Your task to perform on an android device: turn on priority inbox in the gmail app Image 0: 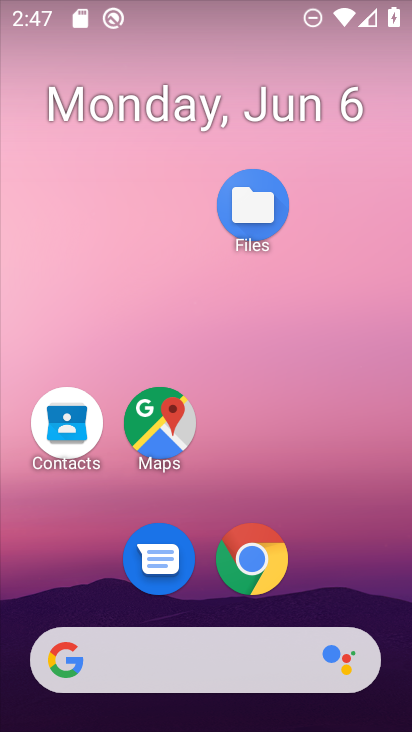
Step 0: drag from (206, 658) to (253, 136)
Your task to perform on an android device: turn on priority inbox in the gmail app Image 1: 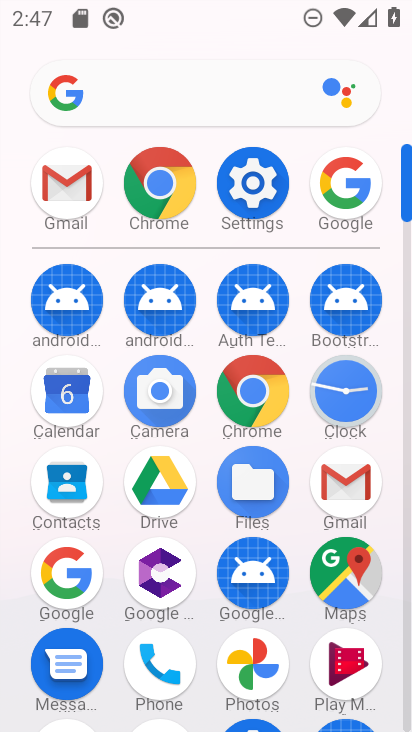
Step 1: click (352, 489)
Your task to perform on an android device: turn on priority inbox in the gmail app Image 2: 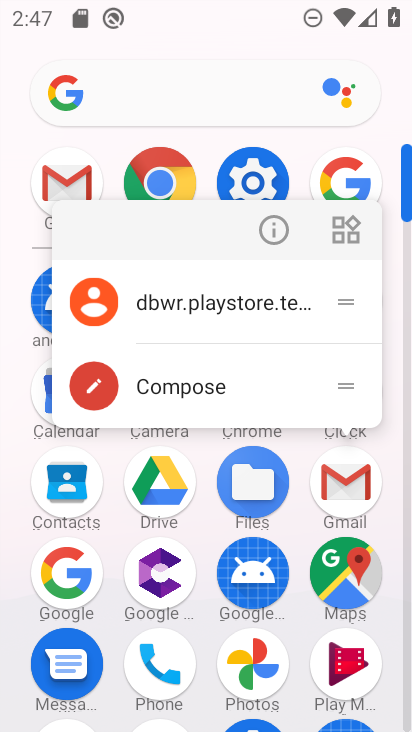
Step 2: click (349, 488)
Your task to perform on an android device: turn on priority inbox in the gmail app Image 3: 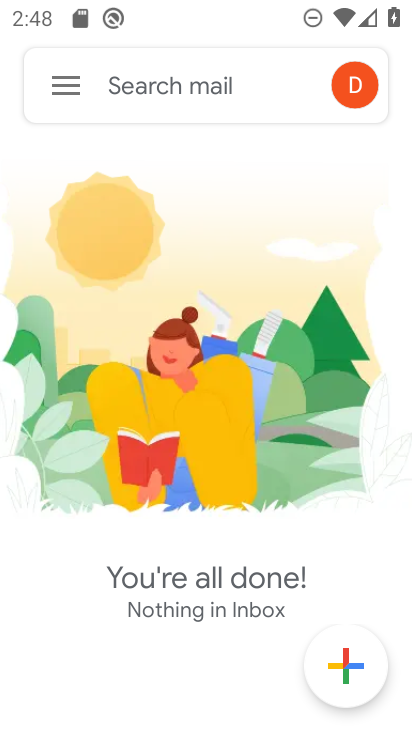
Step 3: click (79, 81)
Your task to perform on an android device: turn on priority inbox in the gmail app Image 4: 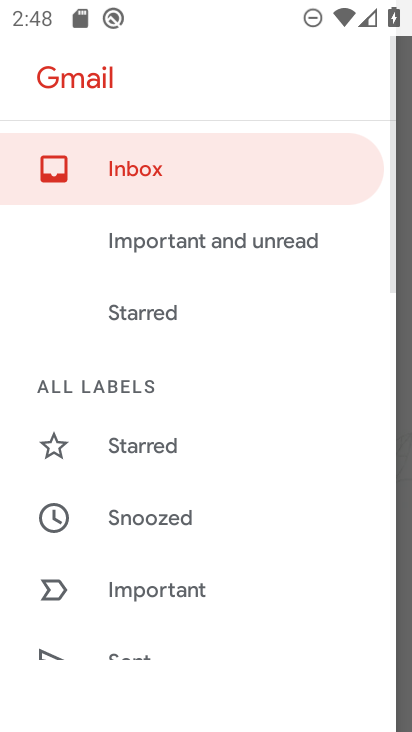
Step 4: drag from (173, 576) to (216, 145)
Your task to perform on an android device: turn on priority inbox in the gmail app Image 5: 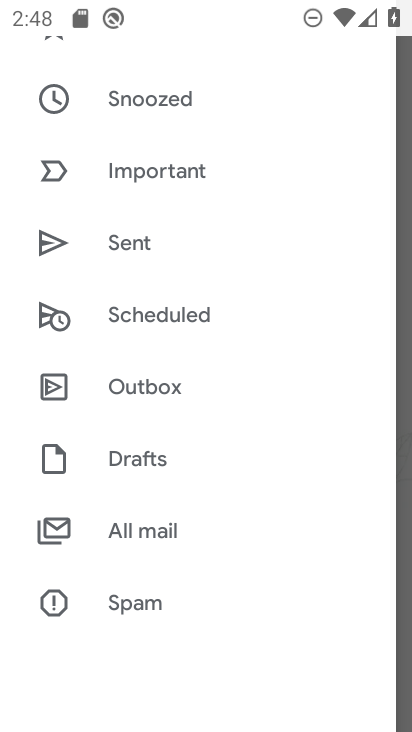
Step 5: drag from (193, 417) to (197, 645)
Your task to perform on an android device: turn on priority inbox in the gmail app Image 6: 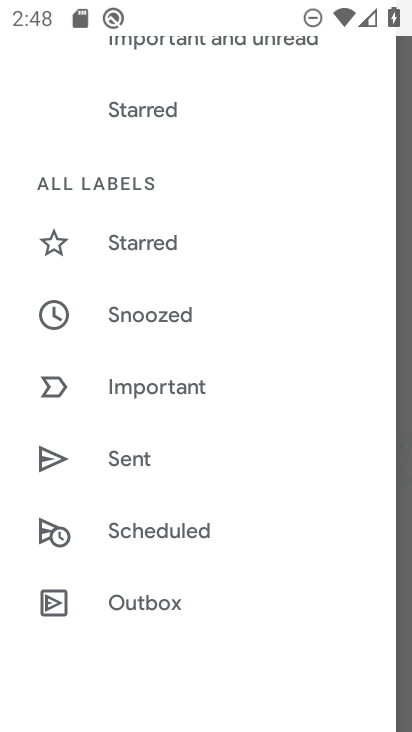
Step 6: drag from (179, 545) to (226, 196)
Your task to perform on an android device: turn on priority inbox in the gmail app Image 7: 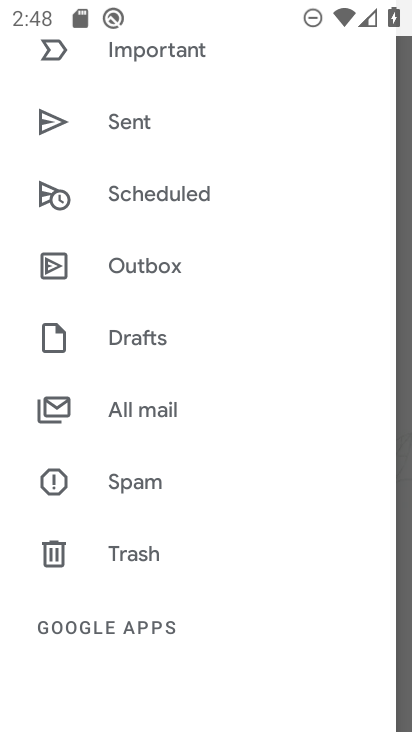
Step 7: drag from (191, 561) to (207, 223)
Your task to perform on an android device: turn on priority inbox in the gmail app Image 8: 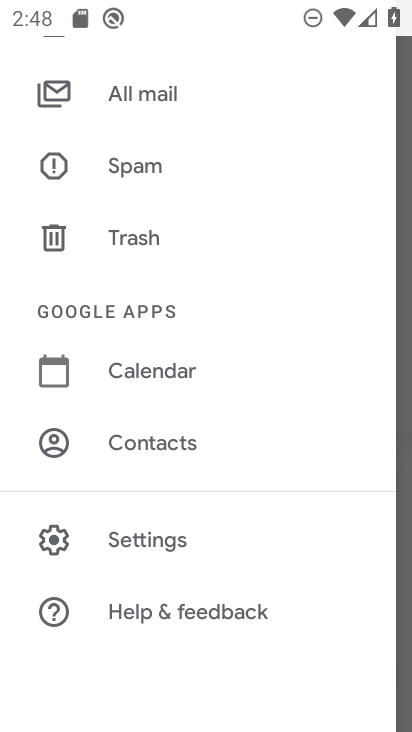
Step 8: click (156, 549)
Your task to perform on an android device: turn on priority inbox in the gmail app Image 9: 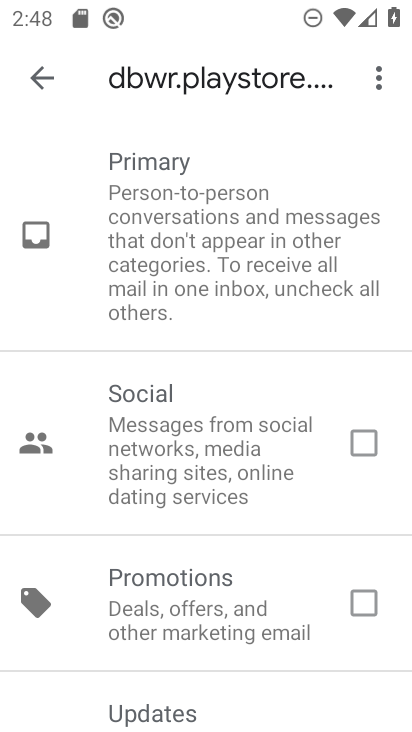
Step 9: click (54, 79)
Your task to perform on an android device: turn on priority inbox in the gmail app Image 10: 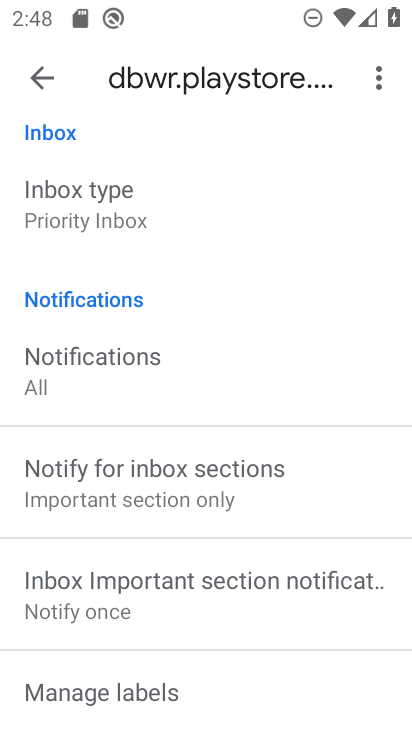
Step 10: drag from (121, 494) to (168, 93)
Your task to perform on an android device: turn on priority inbox in the gmail app Image 11: 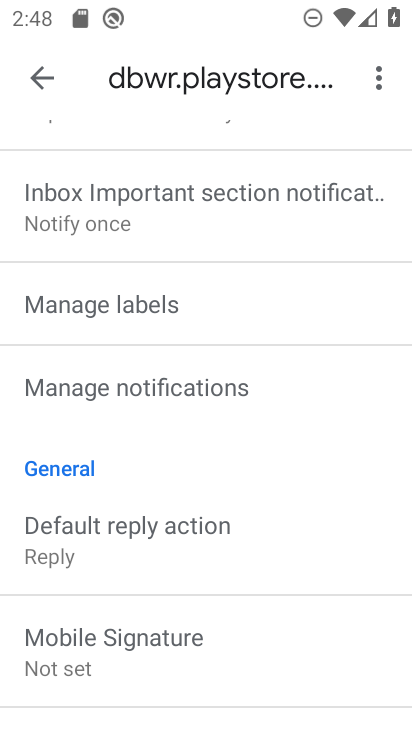
Step 11: drag from (171, 507) to (184, 729)
Your task to perform on an android device: turn on priority inbox in the gmail app Image 12: 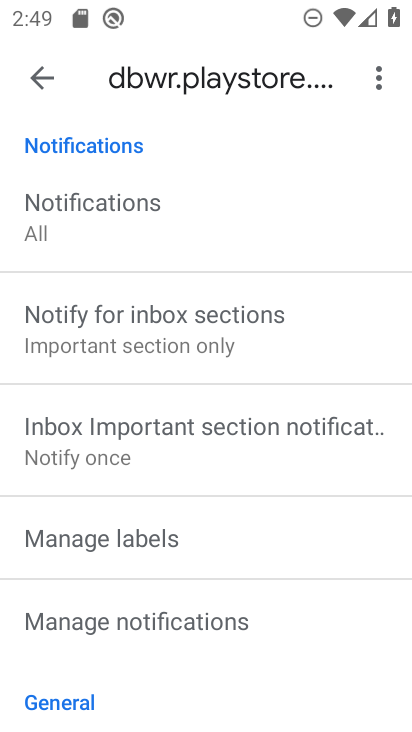
Step 12: drag from (138, 241) to (161, 729)
Your task to perform on an android device: turn on priority inbox in the gmail app Image 13: 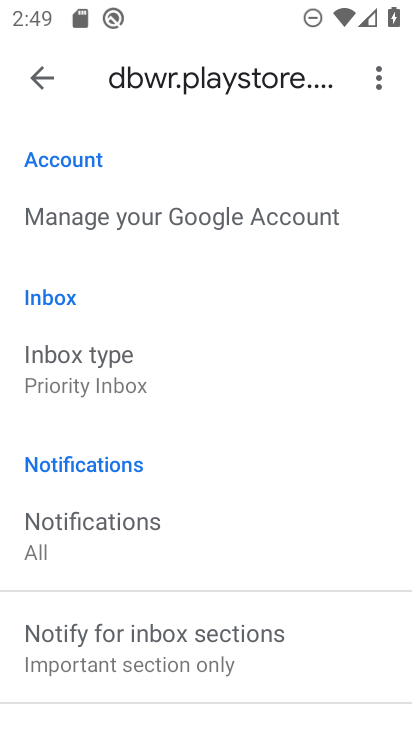
Step 13: click (136, 373)
Your task to perform on an android device: turn on priority inbox in the gmail app Image 14: 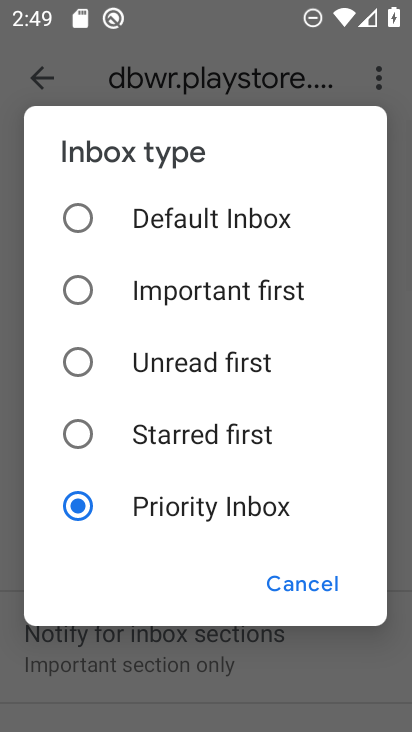
Step 14: task complete